Your task to perform on an android device: open a bookmark in the chrome app Image 0: 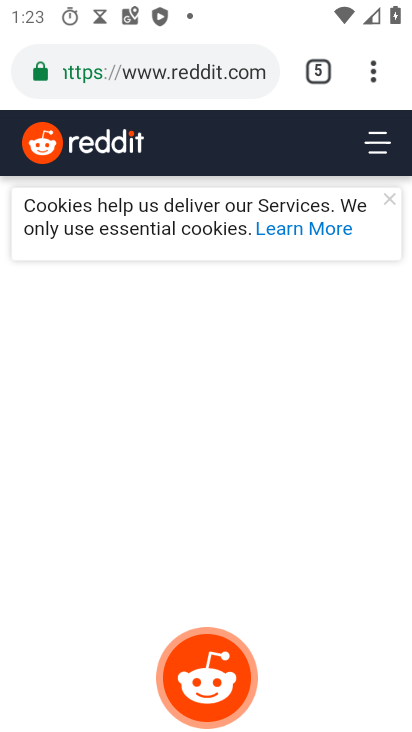
Step 0: press home button
Your task to perform on an android device: open a bookmark in the chrome app Image 1: 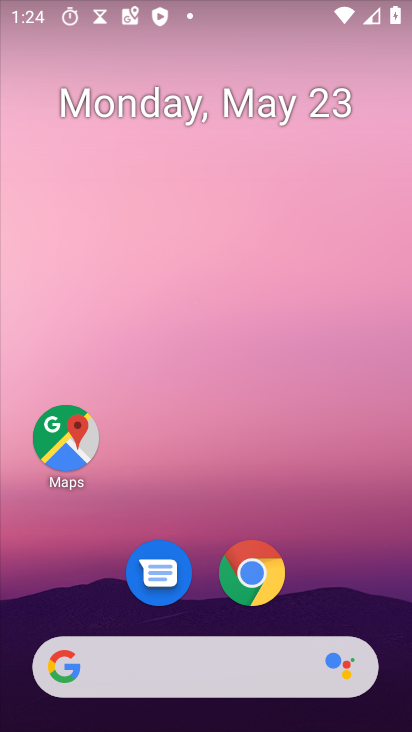
Step 1: click (255, 590)
Your task to perform on an android device: open a bookmark in the chrome app Image 2: 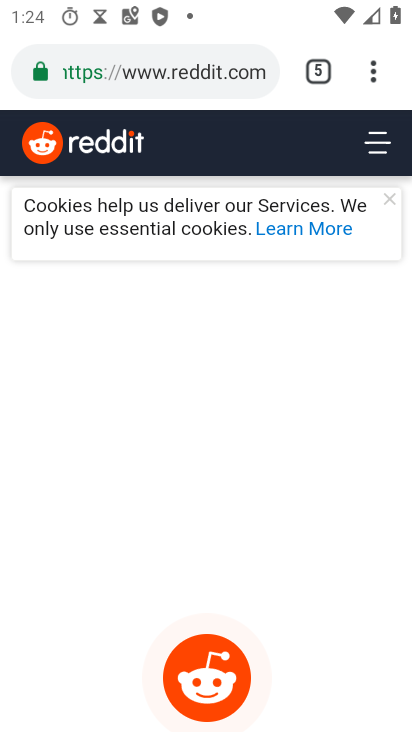
Step 2: task complete